Your task to perform on an android device: toggle airplane mode Image 0: 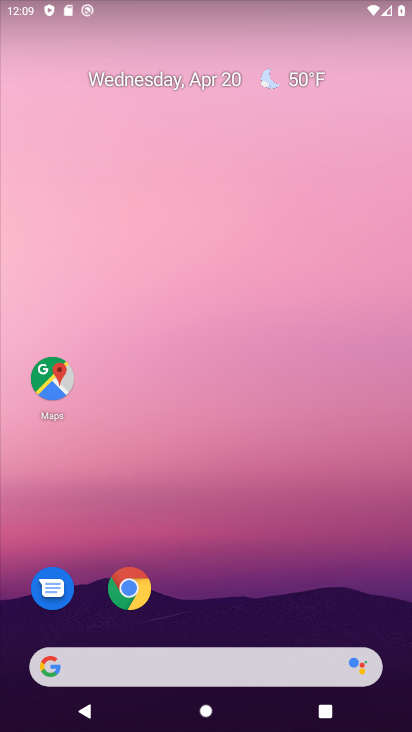
Step 0: drag from (224, 615) to (233, 3)
Your task to perform on an android device: toggle airplane mode Image 1: 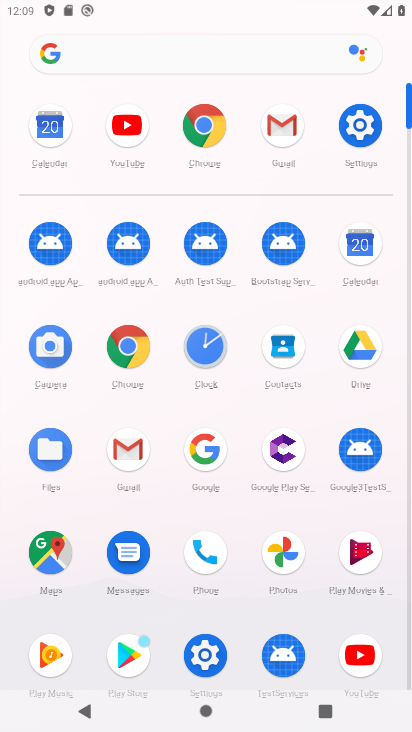
Step 1: drag from (266, 153) to (277, 504)
Your task to perform on an android device: toggle airplane mode Image 2: 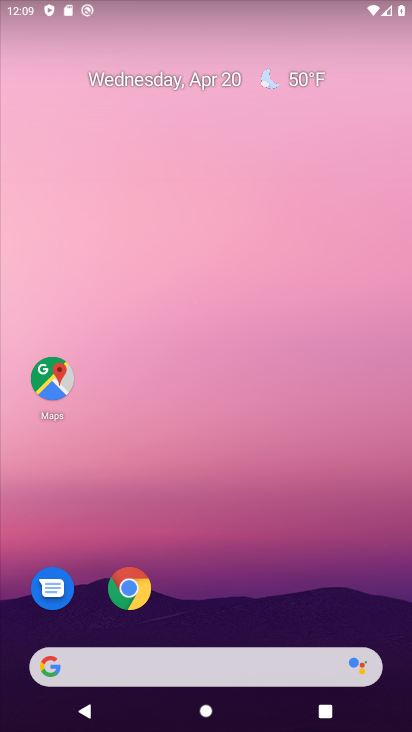
Step 2: drag from (261, 29) to (261, 420)
Your task to perform on an android device: toggle airplane mode Image 3: 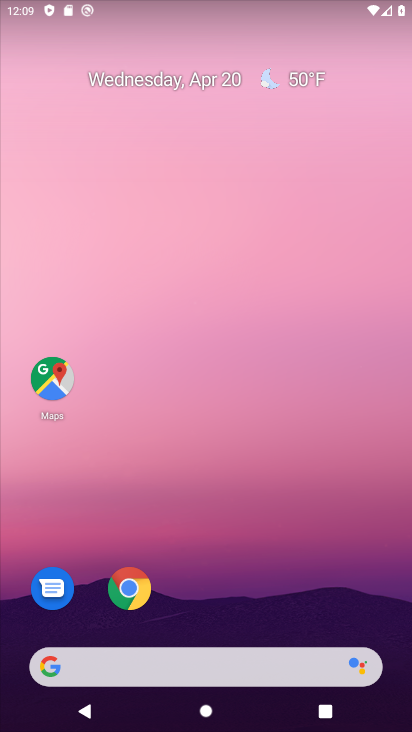
Step 3: drag from (218, 32) to (236, 488)
Your task to perform on an android device: toggle airplane mode Image 4: 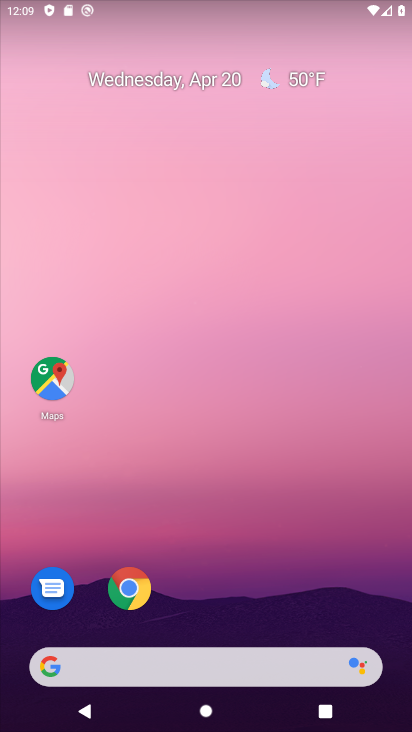
Step 4: drag from (258, 19) to (257, 556)
Your task to perform on an android device: toggle airplane mode Image 5: 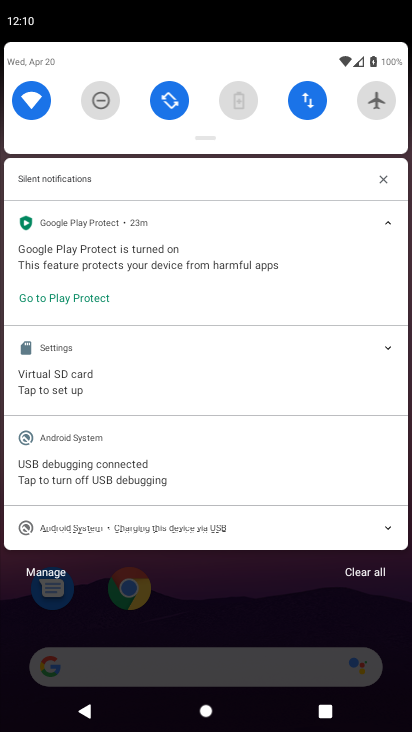
Step 5: click (379, 97)
Your task to perform on an android device: toggle airplane mode Image 6: 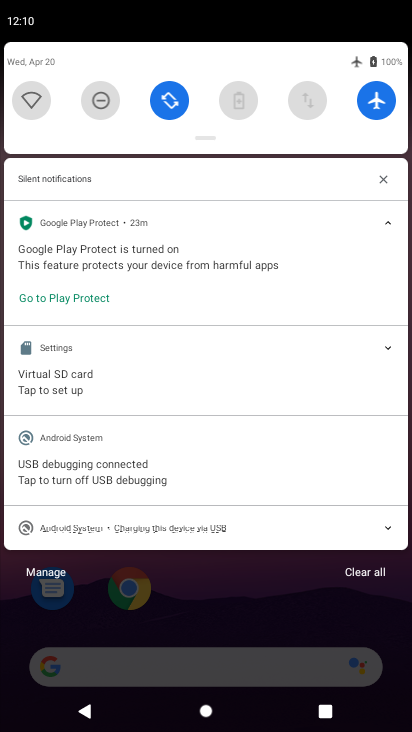
Step 6: task complete